Your task to perform on an android device: Open ESPN.com Image 0: 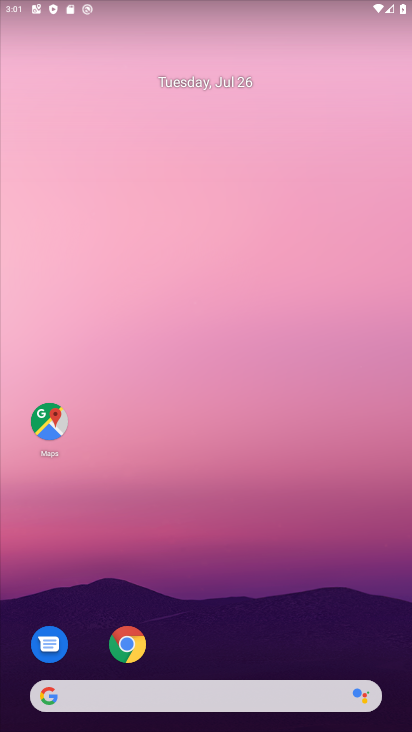
Step 0: click (129, 652)
Your task to perform on an android device: Open ESPN.com Image 1: 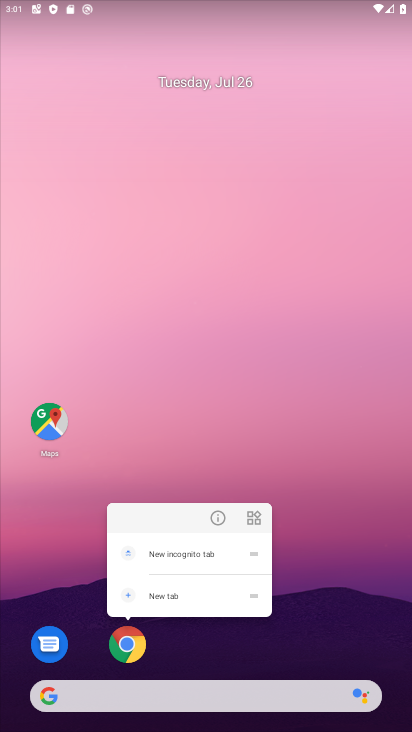
Step 1: click (125, 647)
Your task to perform on an android device: Open ESPN.com Image 2: 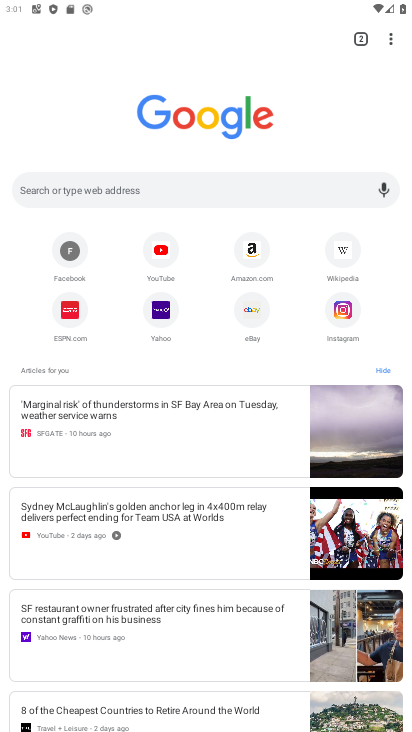
Step 2: click (61, 314)
Your task to perform on an android device: Open ESPN.com Image 3: 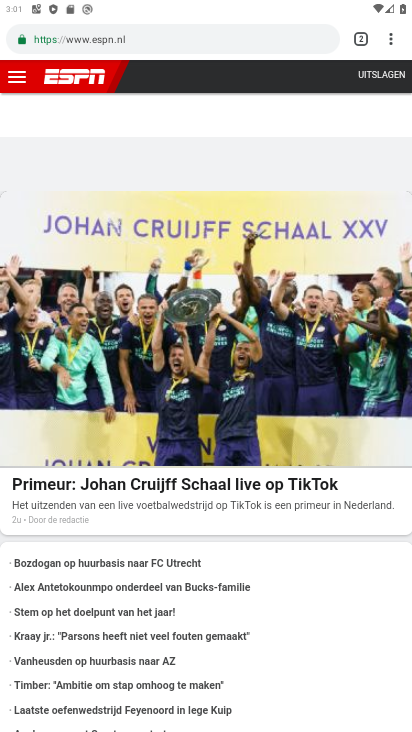
Step 3: task complete